Your task to perform on an android device: check out phone information Image 0: 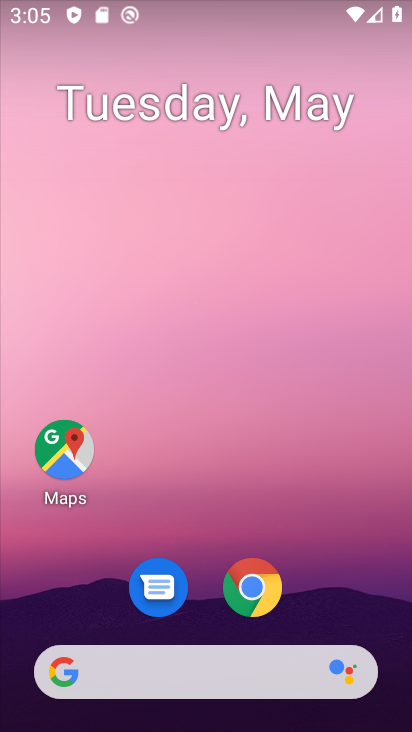
Step 0: drag from (315, 580) to (336, 257)
Your task to perform on an android device: check out phone information Image 1: 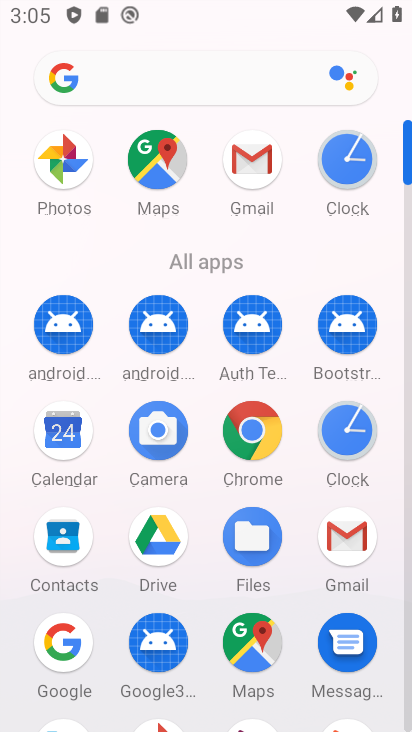
Step 1: drag from (206, 580) to (234, 184)
Your task to perform on an android device: check out phone information Image 2: 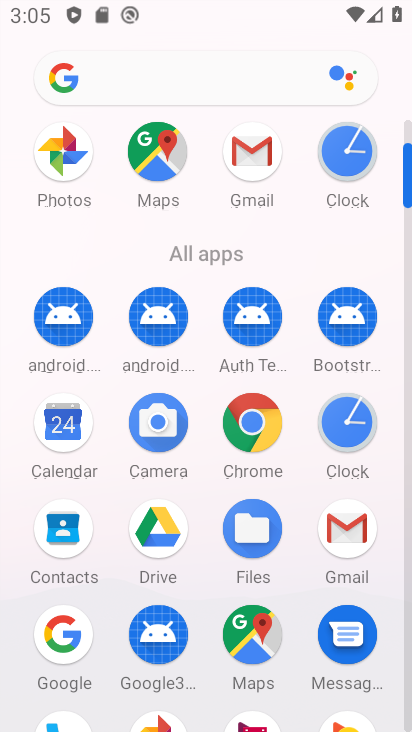
Step 2: drag from (218, 611) to (279, 222)
Your task to perform on an android device: check out phone information Image 3: 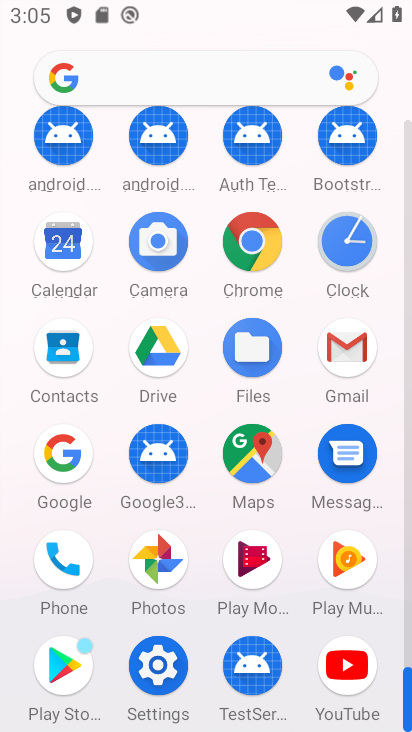
Step 3: click (153, 663)
Your task to perform on an android device: check out phone information Image 4: 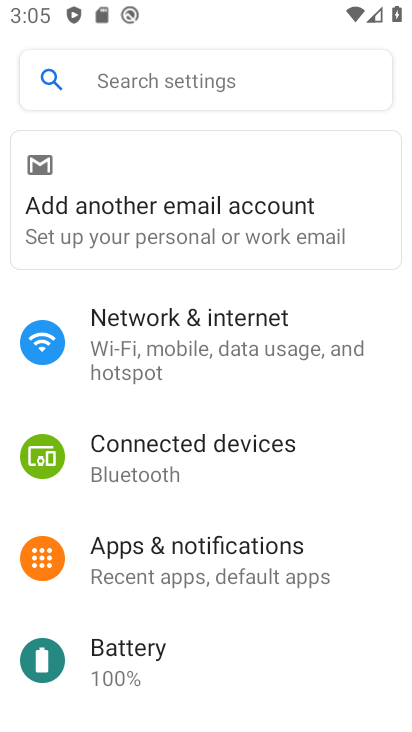
Step 4: drag from (230, 631) to (331, 126)
Your task to perform on an android device: check out phone information Image 5: 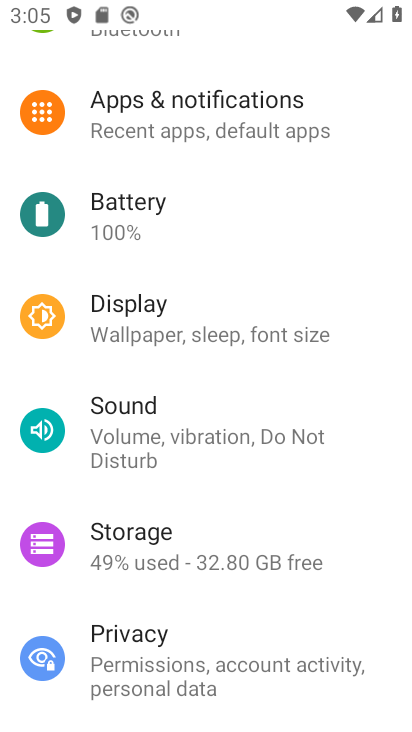
Step 5: drag from (269, 604) to (315, 130)
Your task to perform on an android device: check out phone information Image 6: 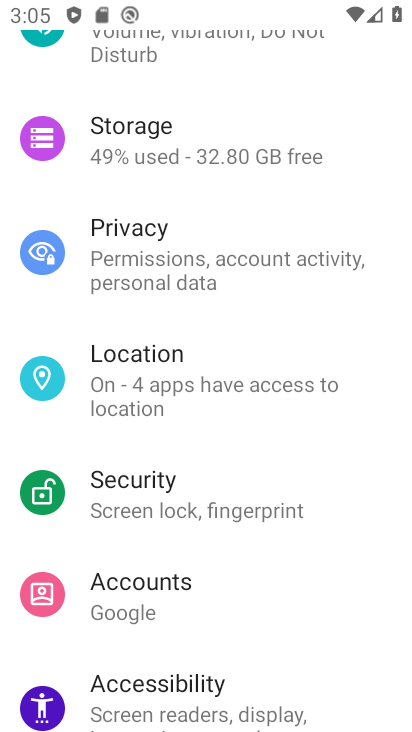
Step 6: drag from (199, 666) to (249, 133)
Your task to perform on an android device: check out phone information Image 7: 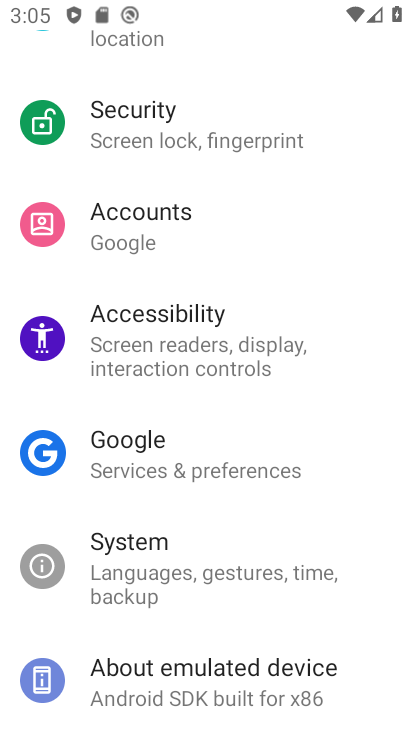
Step 7: click (214, 676)
Your task to perform on an android device: check out phone information Image 8: 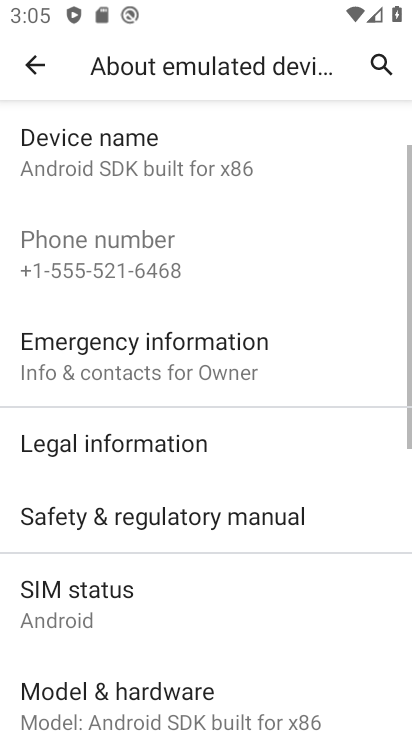
Step 8: task complete